Your task to perform on an android device: What's the weather today? Image 0: 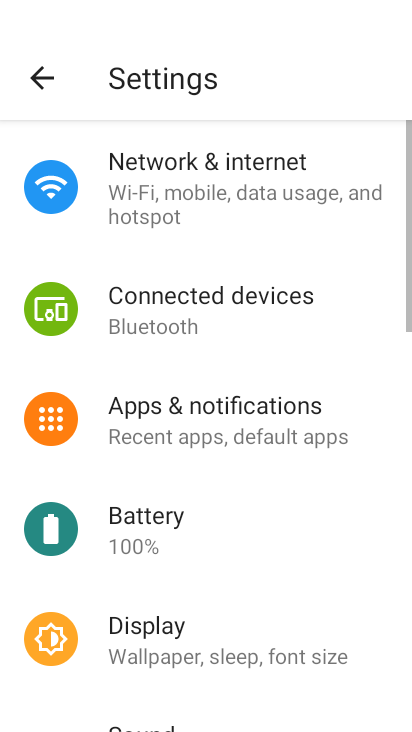
Step 0: drag from (322, 590) to (293, 222)
Your task to perform on an android device: What's the weather today? Image 1: 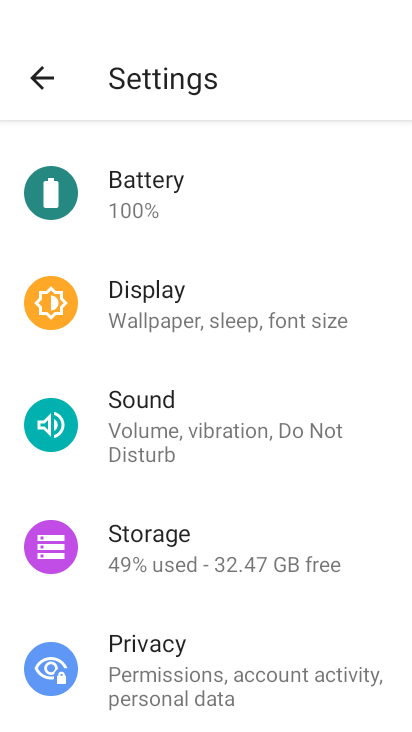
Step 1: press back button
Your task to perform on an android device: What's the weather today? Image 2: 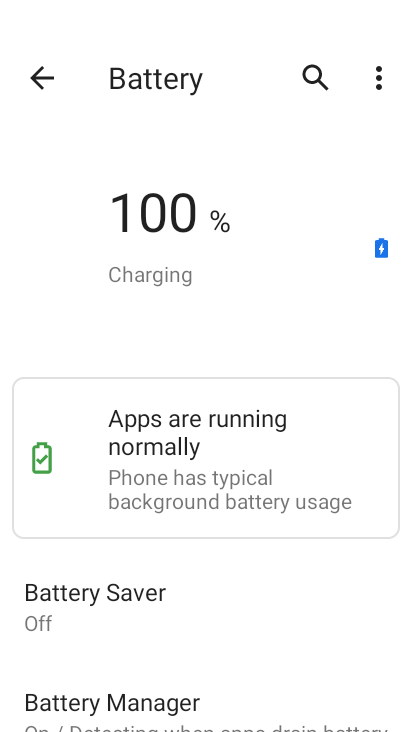
Step 2: press back button
Your task to perform on an android device: What's the weather today? Image 3: 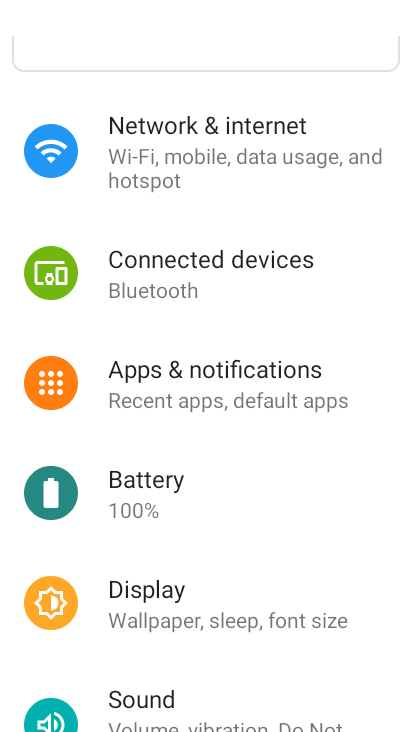
Step 3: press back button
Your task to perform on an android device: What's the weather today? Image 4: 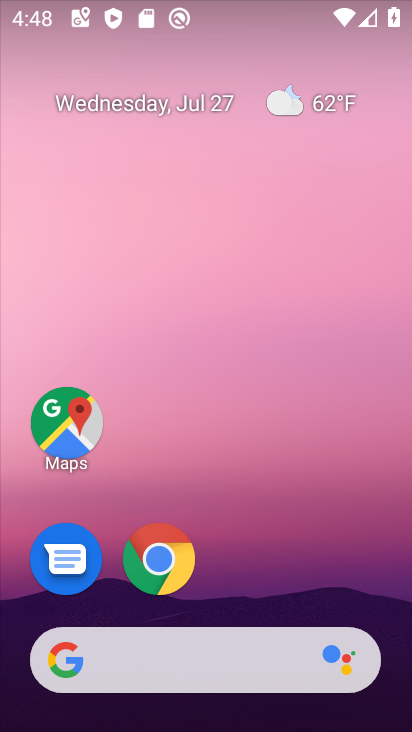
Step 4: drag from (219, 574) to (259, 67)
Your task to perform on an android device: What's the weather today? Image 5: 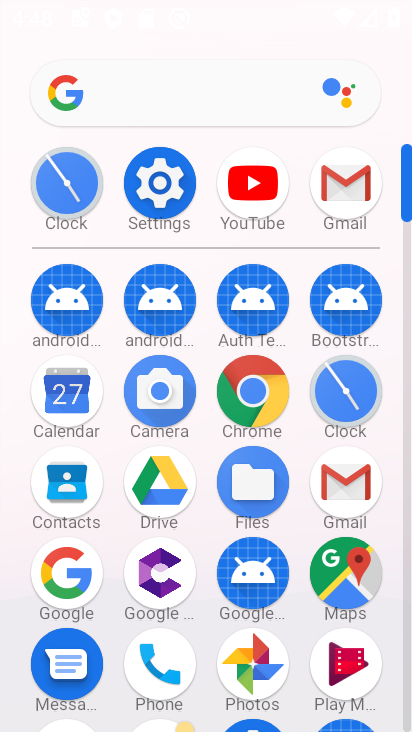
Step 5: click (107, 100)
Your task to perform on an android device: What's the weather today? Image 6: 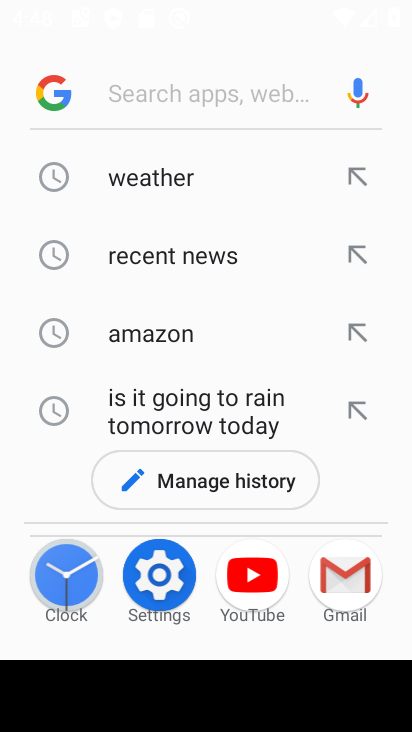
Step 6: click (168, 182)
Your task to perform on an android device: What's the weather today? Image 7: 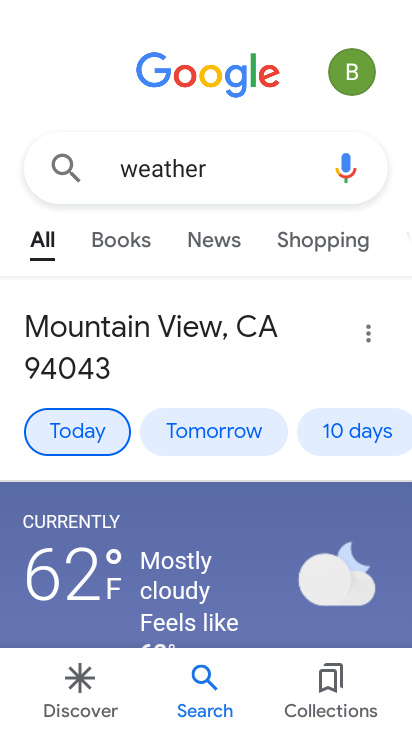
Step 7: click (99, 431)
Your task to perform on an android device: What's the weather today? Image 8: 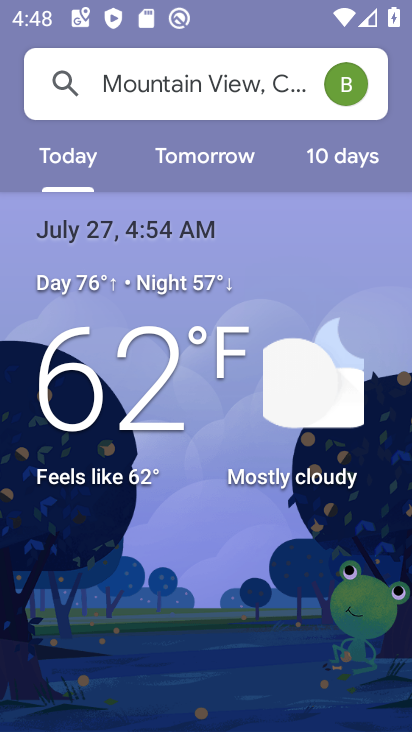
Step 8: task complete